Your task to perform on an android device: toggle notification dots Image 0: 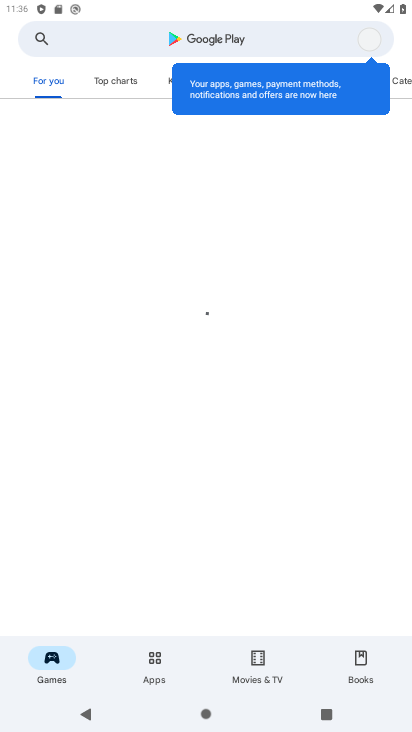
Step 0: press home button
Your task to perform on an android device: toggle notification dots Image 1: 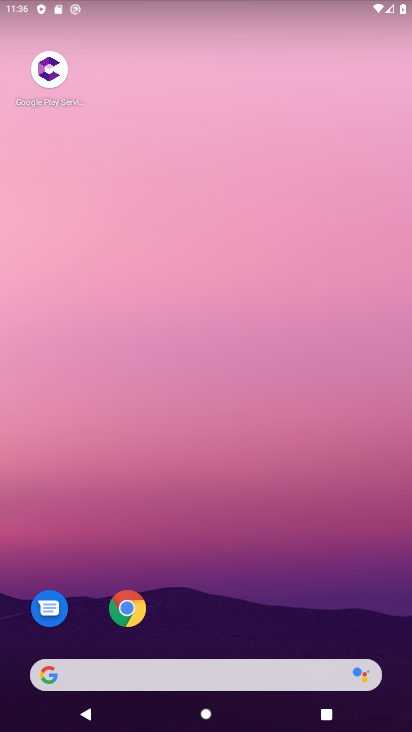
Step 1: drag from (196, 617) to (266, 252)
Your task to perform on an android device: toggle notification dots Image 2: 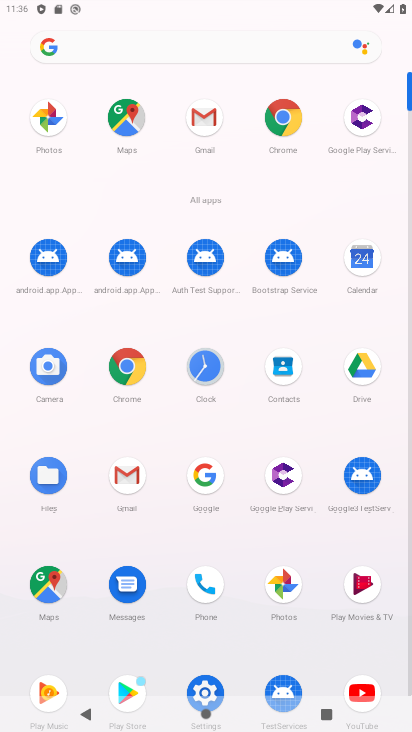
Step 2: drag from (89, 707) to (174, 445)
Your task to perform on an android device: toggle notification dots Image 3: 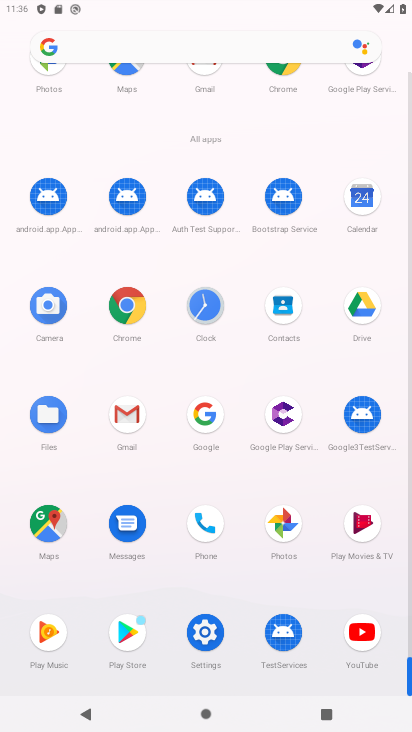
Step 3: click (231, 626)
Your task to perform on an android device: toggle notification dots Image 4: 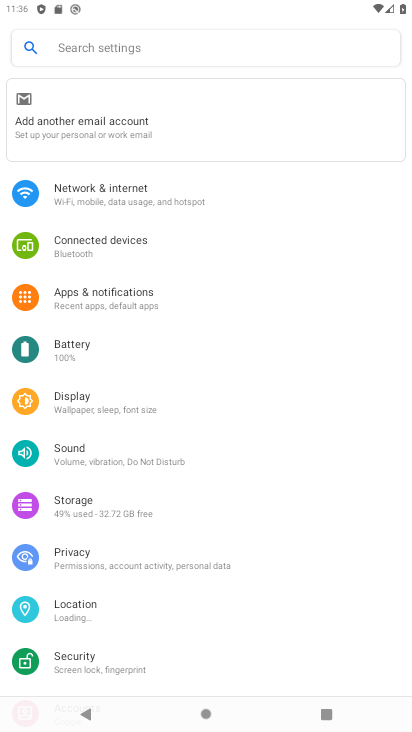
Step 4: click (162, 313)
Your task to perform on an android device: toggle notification dots Image 5: 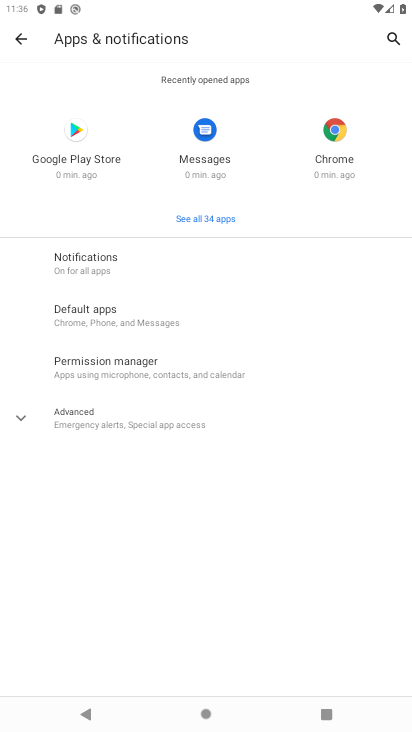
Step 5: click (153, 268)
Your task to perform on an android device: toggle notification dots Image 6: 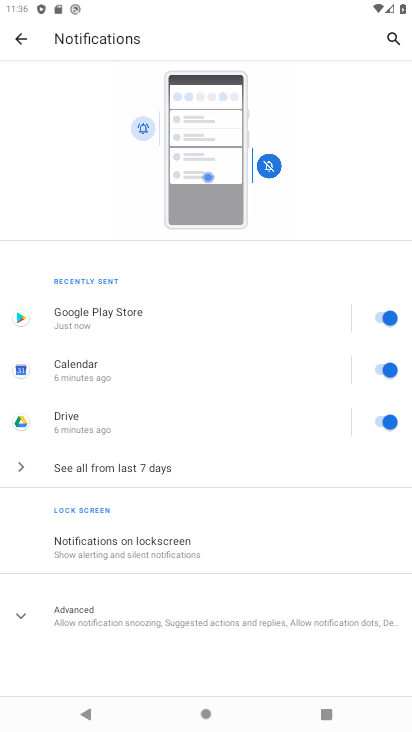
Step 6: drag from (169, 647) to (250, 344)
Your task to perform on an android device: toggle notification dots Image 7: 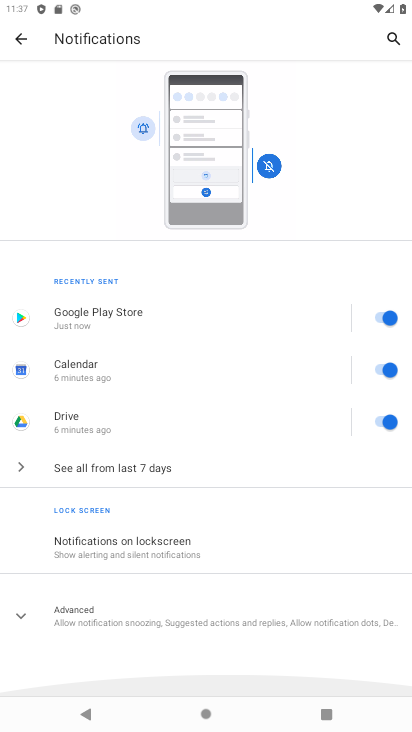
Step 7: click (173, 623)
Your task to perform on an android device: toggle notification dots Image 8: 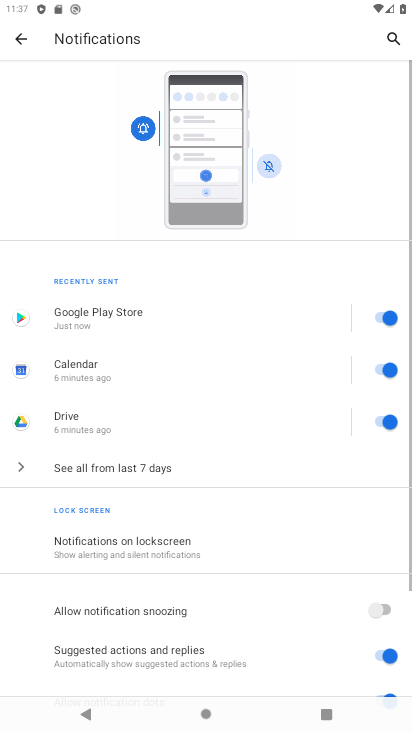
Step 8: drag from (173, 621) to (285, 270)
Your task to perform on an android device: toggle notification dots Image 9: 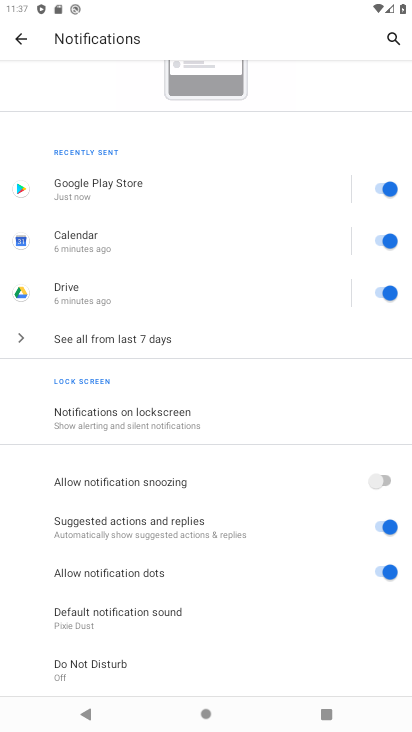
Step 9: click (374, 573)
Your task to perform on an android device: toggle notification dots Image 10: 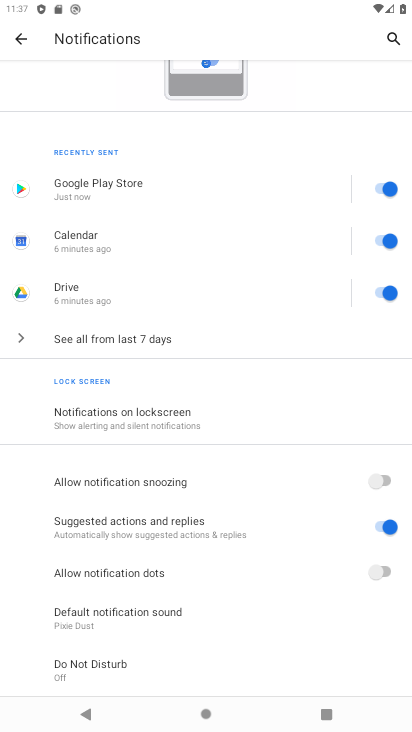
Step 10: task complete